Your task to perform on an android device: add a contact in the contacts app Image 0: 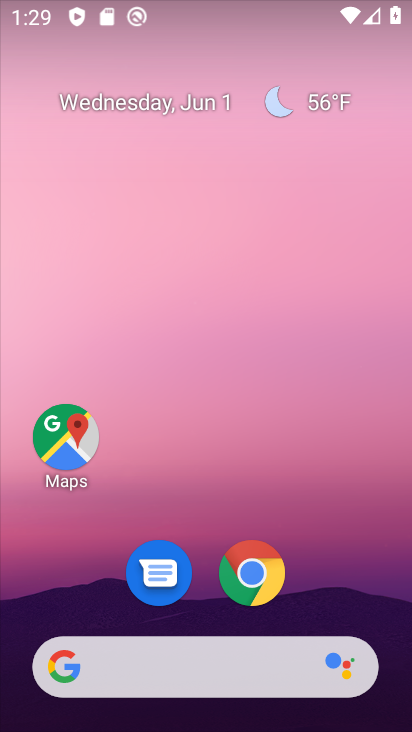
Step 0: drag from (211, 607) to (168, 65)
Your task to perform on an android device: add a contact in the contacts app Image 1: 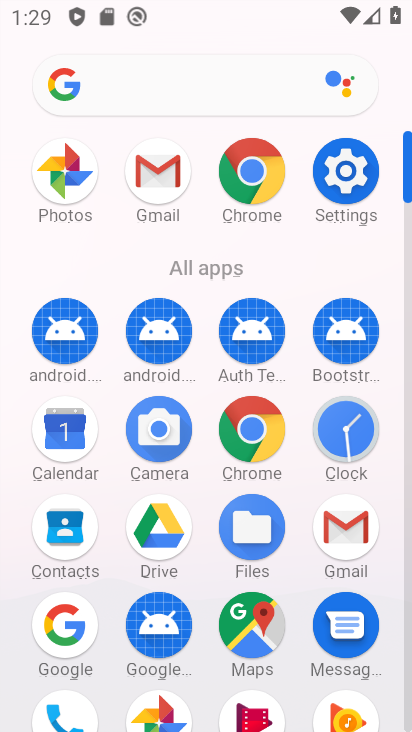
Step 1: click (63, 530)
Your task to perform on an android device: add a contact in the contacts app Image 2: 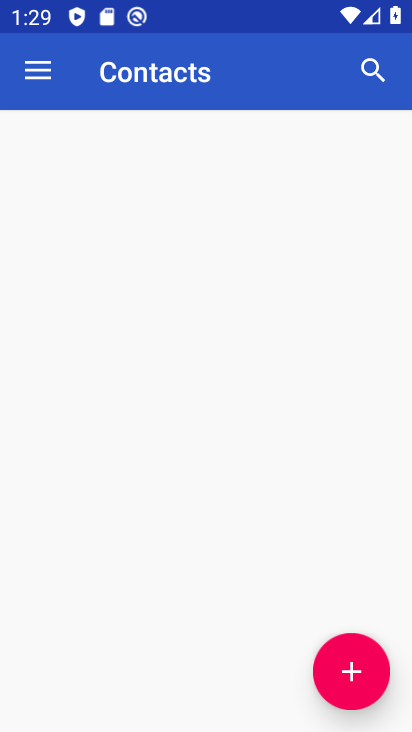
Step 2: click (336, 702)
Your task to perform on an android device: add a contact in the contacts app Image 3: 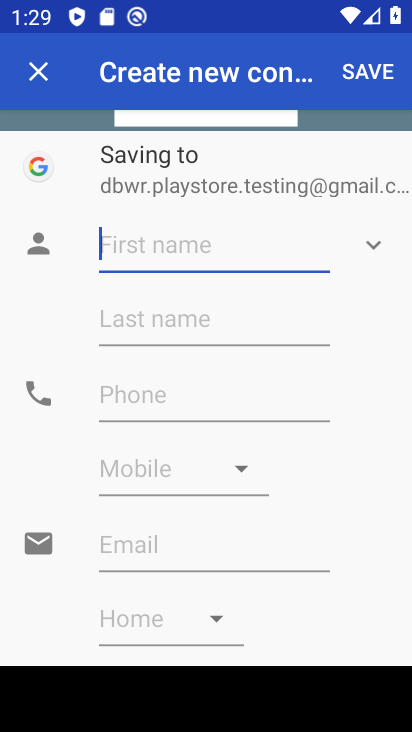
Step 3: type "contacts"
Your task to perform on an android device: add a contact in the contacts app Image 4: 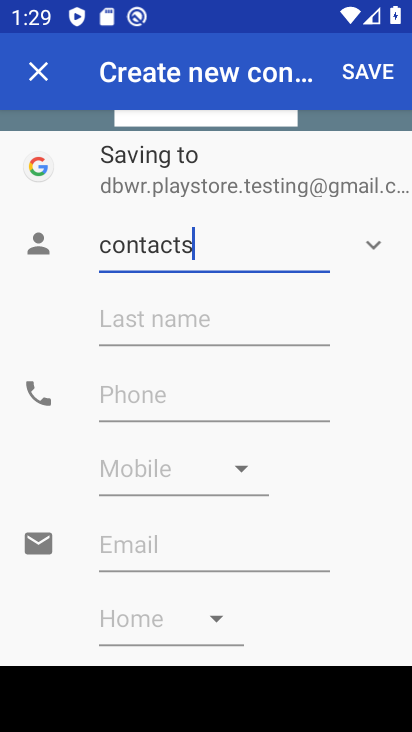
Step 4: type ""
Your task to perform on an android device: add a contact in the contacts app Image 5: 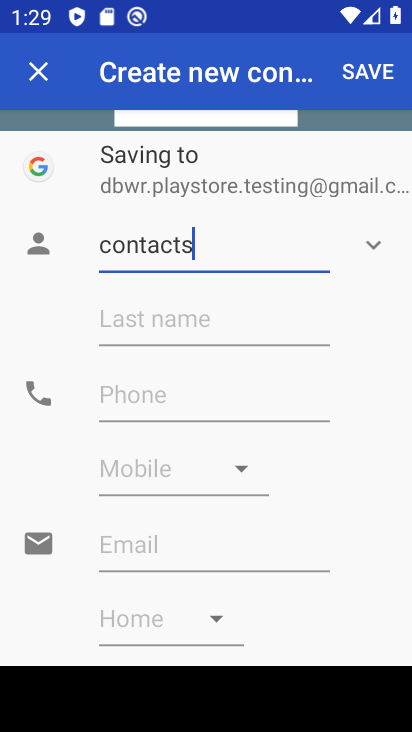
Step 5: click (351, 69)
Your task to perform on an android device: add a contact in the contacts app Image 6: 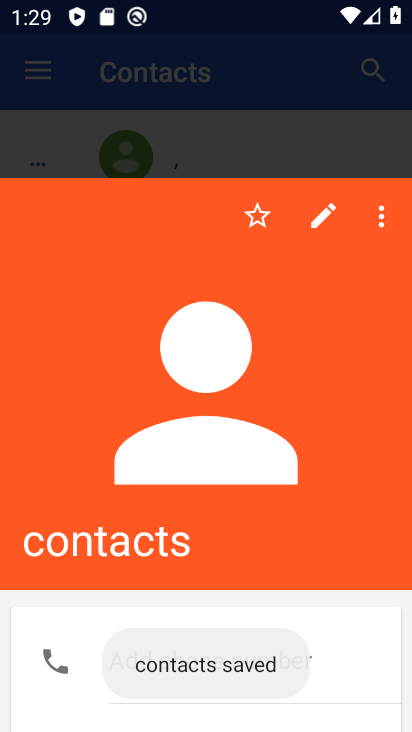
Step 6: task complete